Your task to perform on an android device: search for starred emails in the gmail app Image 0: 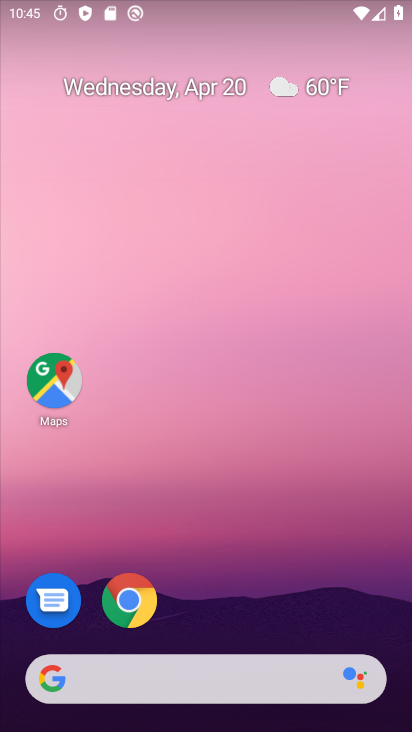
Step 0: drag from (201, 602) to (213, 85)
Your task to perform on an android device: search for starred emails in the gmail app Image 1: 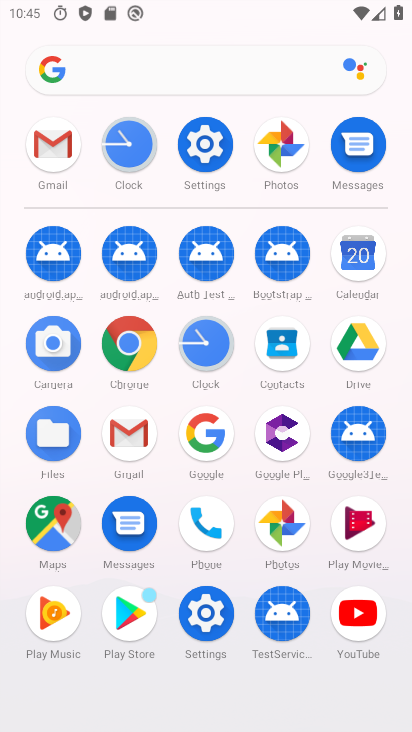
Step 1: click (123, 411)
Your task to perform on an android device: search for starred emails in the gmail app Image 2: 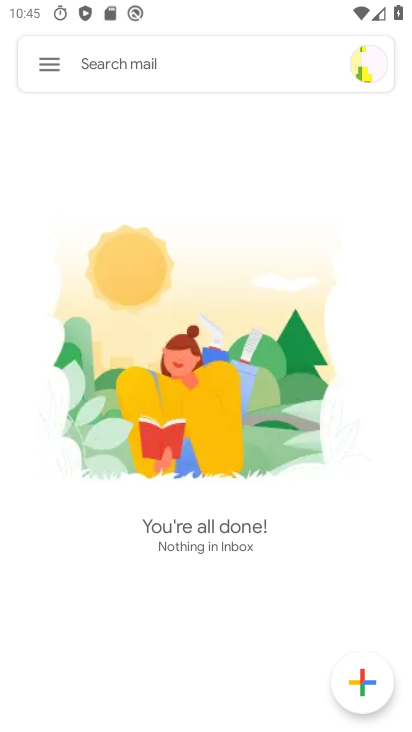
Step 2: click (48, 61)
Your task to perform on an android device: search for starred emails in the gmail app Image 3: 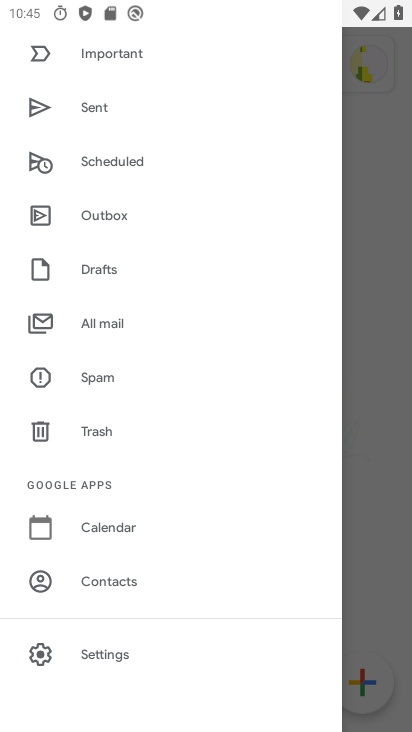
Step 3: drag from (128, 105) to (122, 580)
Your task to perform on an android device: search for starred emails in the gmail app Image 4: 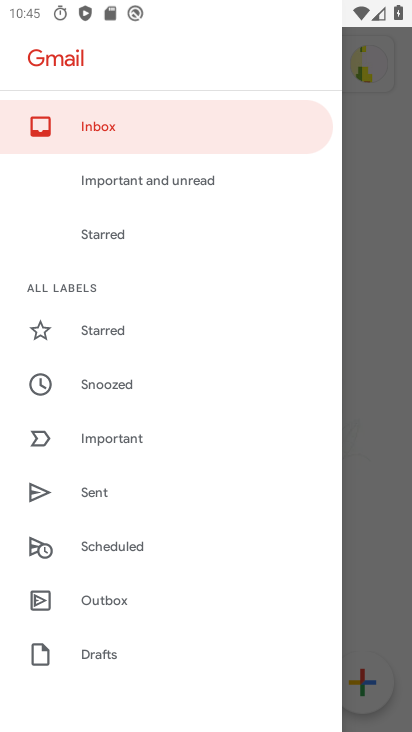
Step 4: click (108, 318)
Your task to perform on an android device: search for starred emails in the gmail app Image 5: 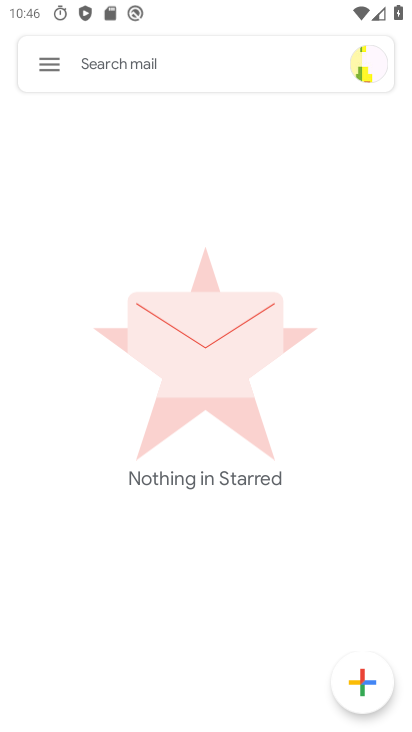
Step 5: task complete